Your task to perform on an android device: allow notifications from all sites in the chrome app Image 0: 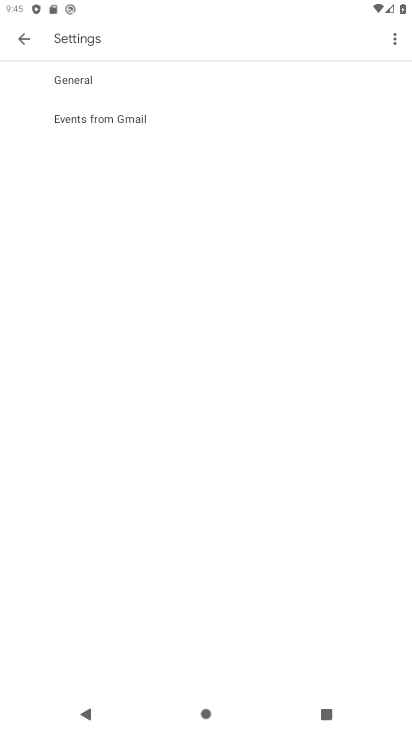
Step 0: press home button
Your task to perform on an android device: allow notifications from all sites in the chrome app Image 1: 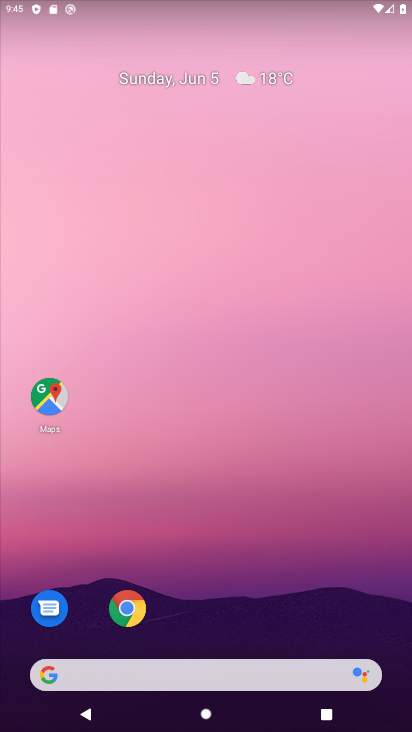
Step 1: click (126, 619)
Your task to perform on an android device: allow notifications from all sites in the chrome app Image 2: 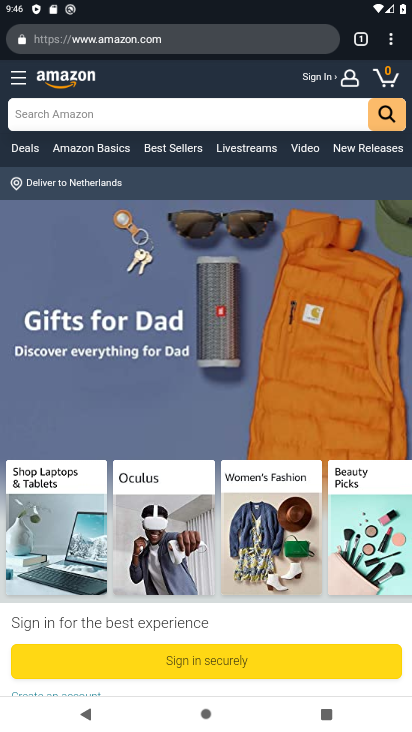
Step 2: drag from (396, 40) to (259, 521)
Your task to perform on an android device: allow notifications from all sites in the chrome app Image 3: 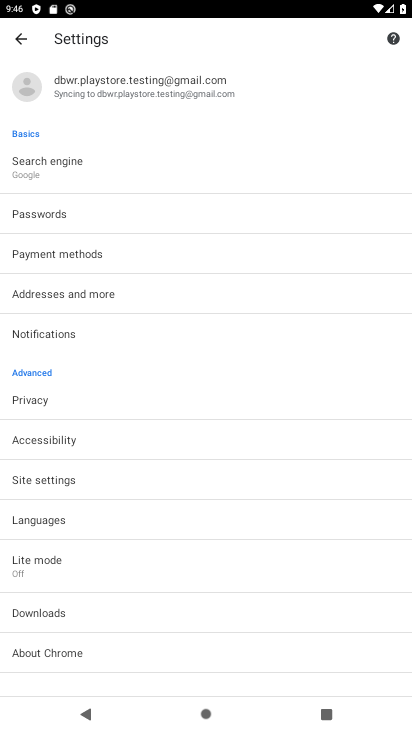
Step 3: click (26, 480)
Your task to perform on an android device: allow notifications from all sites in the chrome app Image 4: 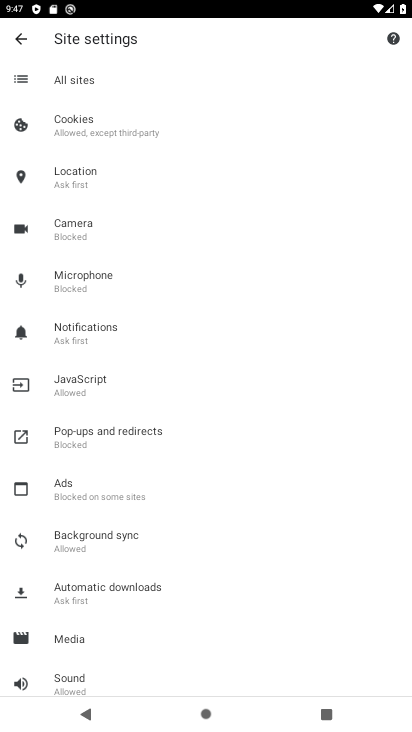
Step 4: click (61, 341)
Your task to perform on an android device: allow notifications from all sites in the chrome app Image 5: 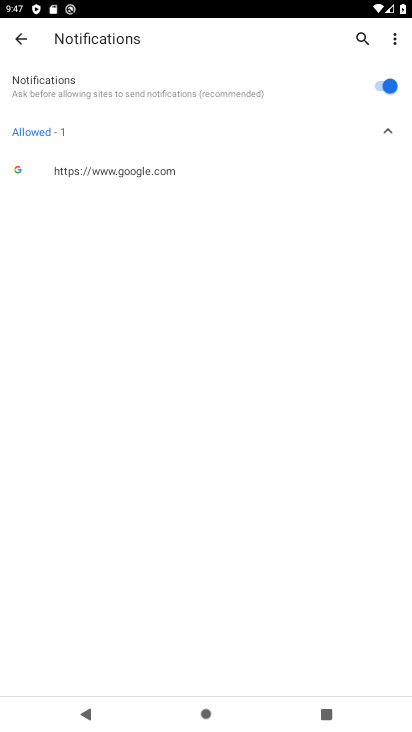
Step 5: task complete